Your task to perform on an android device: snooze an email in the gmail app Image 0: 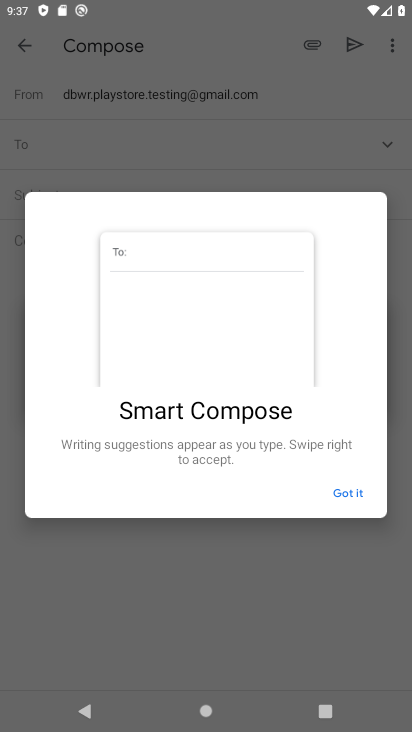
Step 0: press home button
Your task to perform on an android device: snooze an email in the gmail app Image 1: 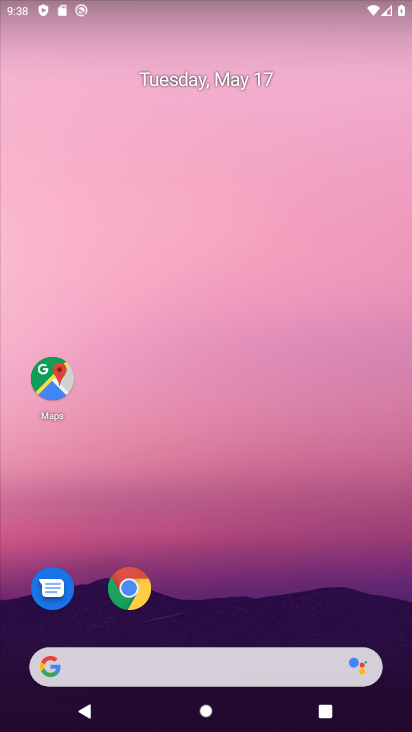
Step 1: drag from (236, 727) to (237, 208)
Your task to perform on an android device: snooze an email in the gmail app Image 2: 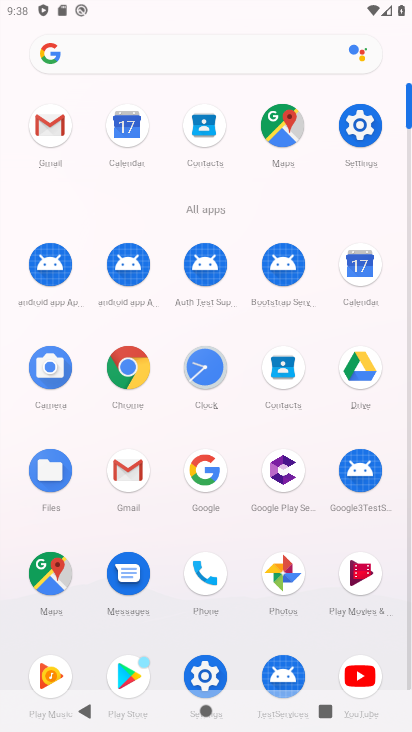
Step 2: click (123, 472)
Your task to perform on an android device: snooze an email in the gmail app Image 3: 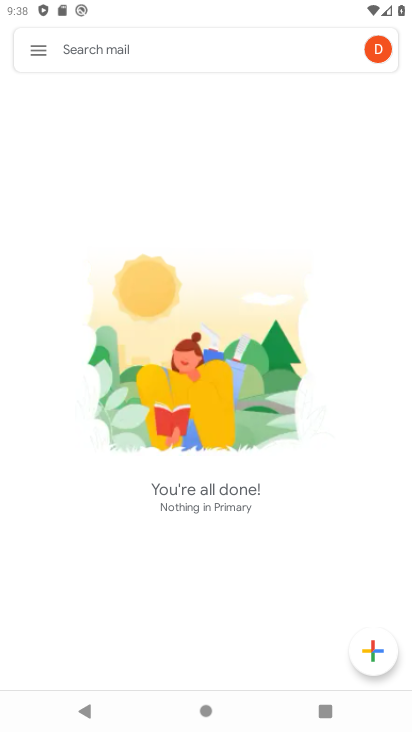
Step 3: click (39, 47)
Your task to perform on an android device: snooze an email in the gmail app Image 4: 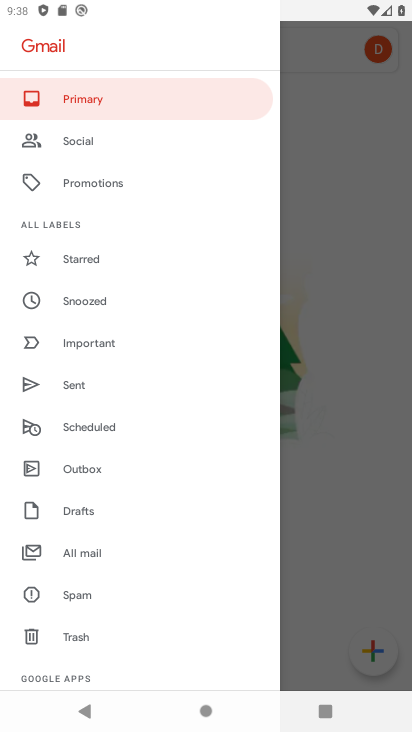
Step 4: click (92, 299)
Your task to perform on an android device: snooze an email in the gmail app Image 5: 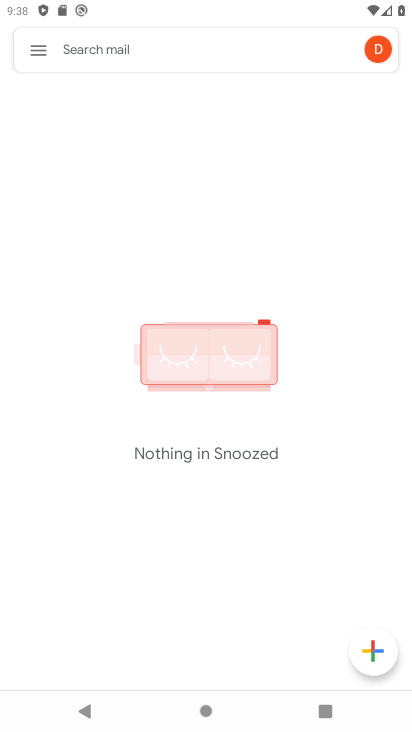
Step 5: task complete